Your task to perform on an android device: Go to Google maps Image 0: 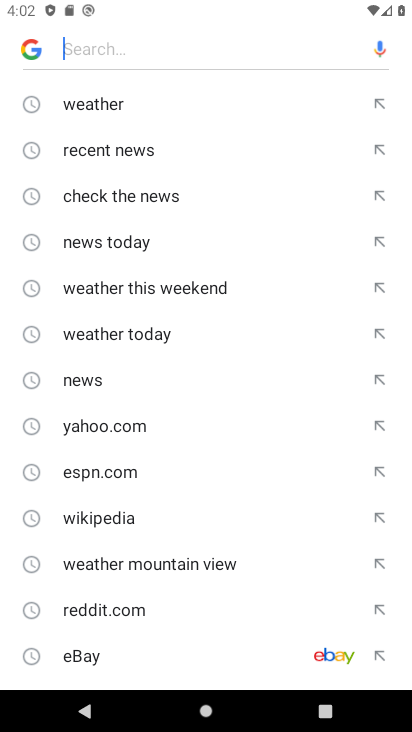
Step 0: press home button
Your task to perform on an android device: Go to Google maps Image 1: 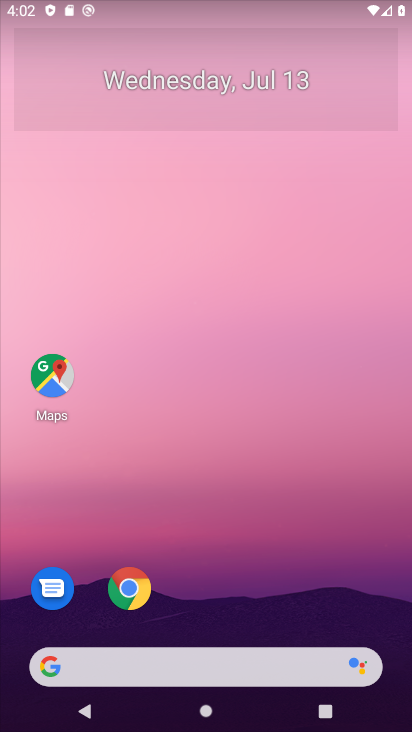
Step 1: click (34, 370)
Your task to perform on an android device: Go to Google maps Image 2: 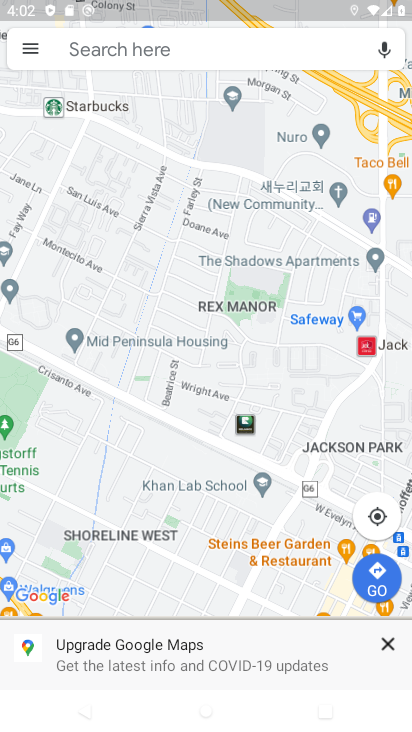
Step 2: task complete